Your task to perform on an android device: What's the latest video from GameSpot? Image 0: 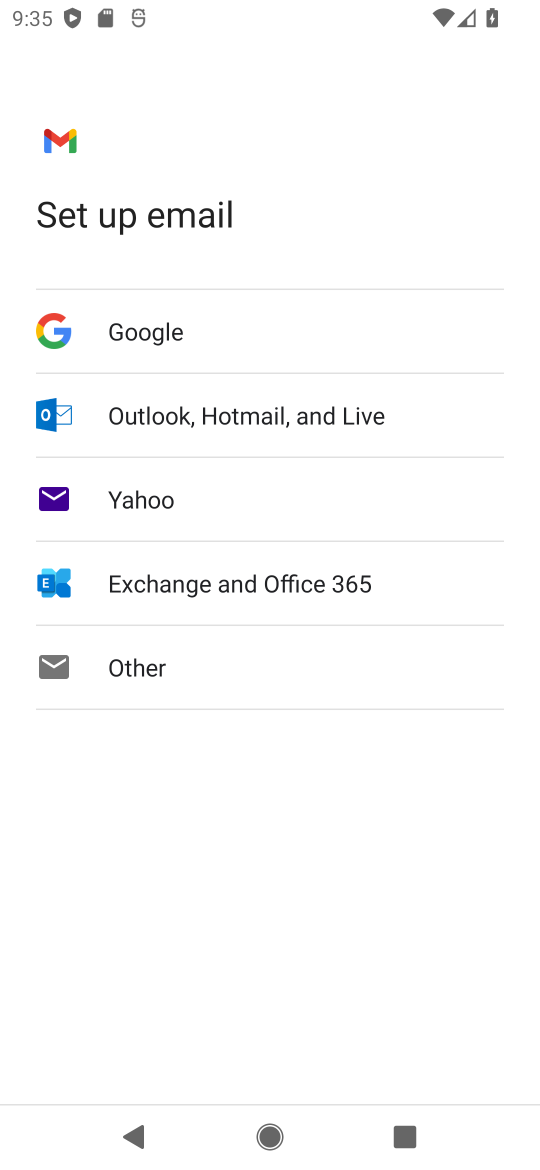
Step 0: press home button
Your task to perform on an android device: What's the latest video from GameSpot? Image 1: 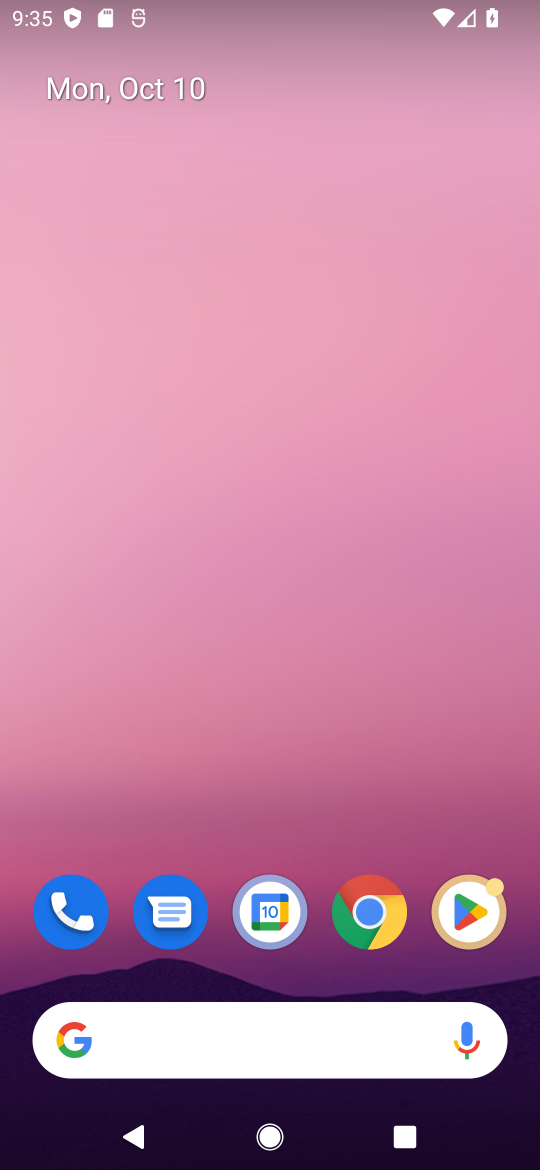
Step 1: click (76, 1035)
Your task to perform on an android device: What's the latest video from GameSpot? Image 2: 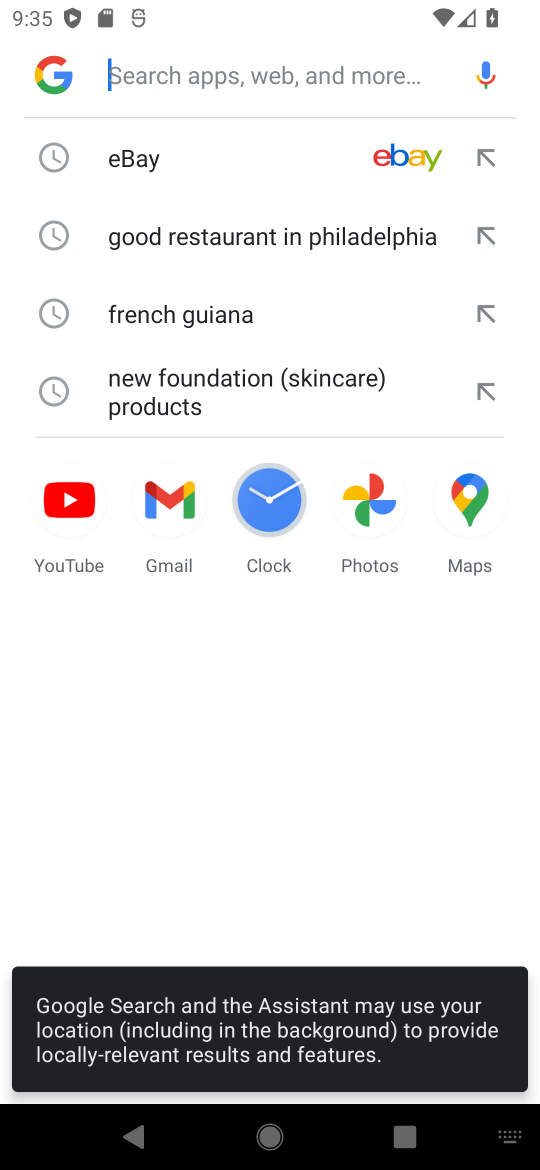
Step 2: click (258, 70)
Your task to perform on an android device: What's the latest video from GameSpot? Image 3: 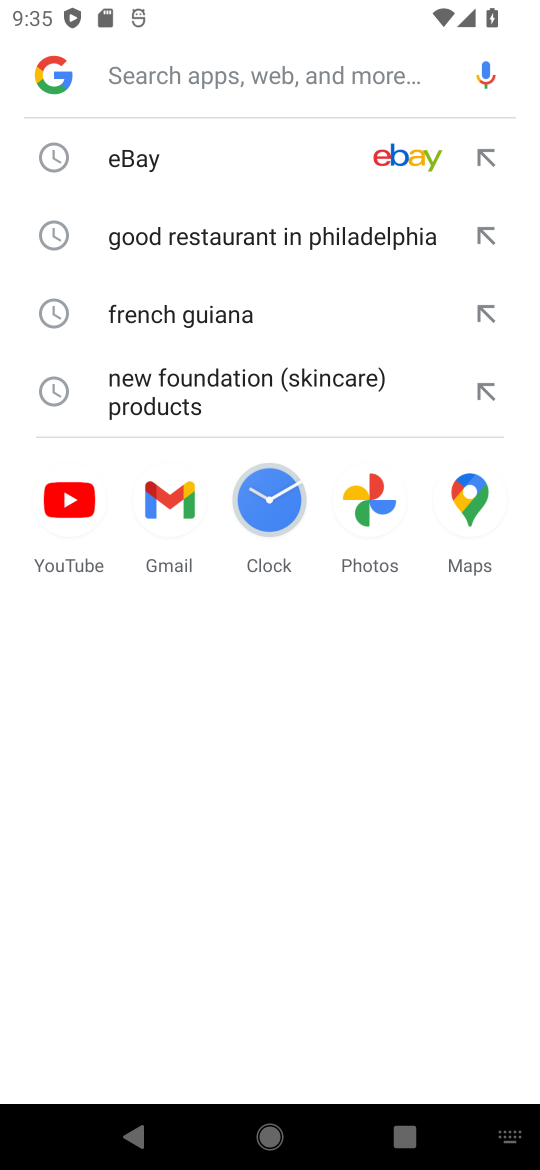
Step 3: type "whats the latest video from gamespot?"
Your task to perform on an android device: What's the latest video from GameSpot? Image 4: 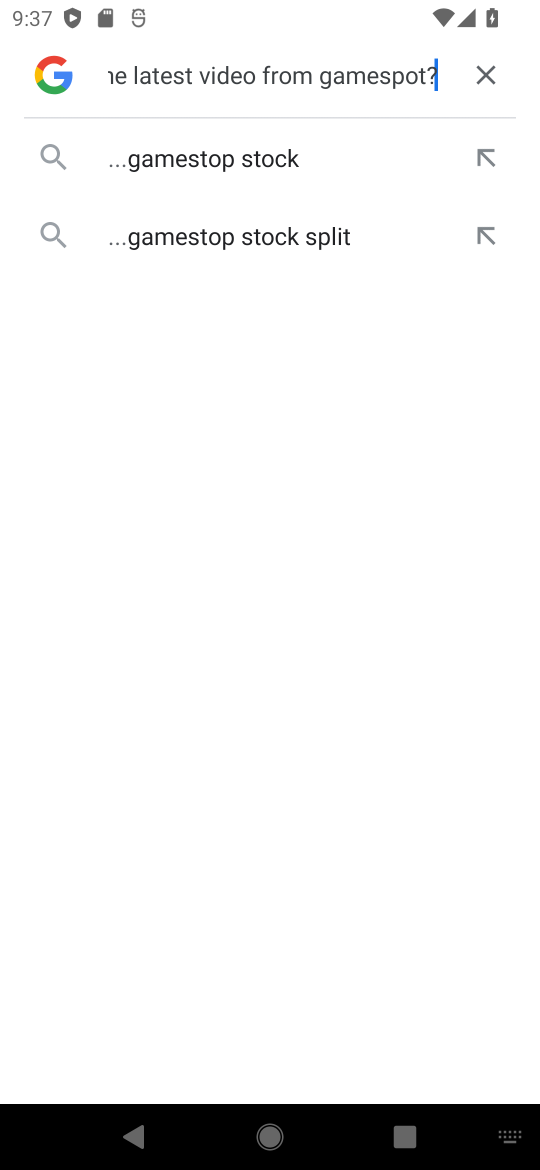
Step 4: click (236, 159)
Your task to perform on an android device: What's the latest video from GameSpot? Image 5: 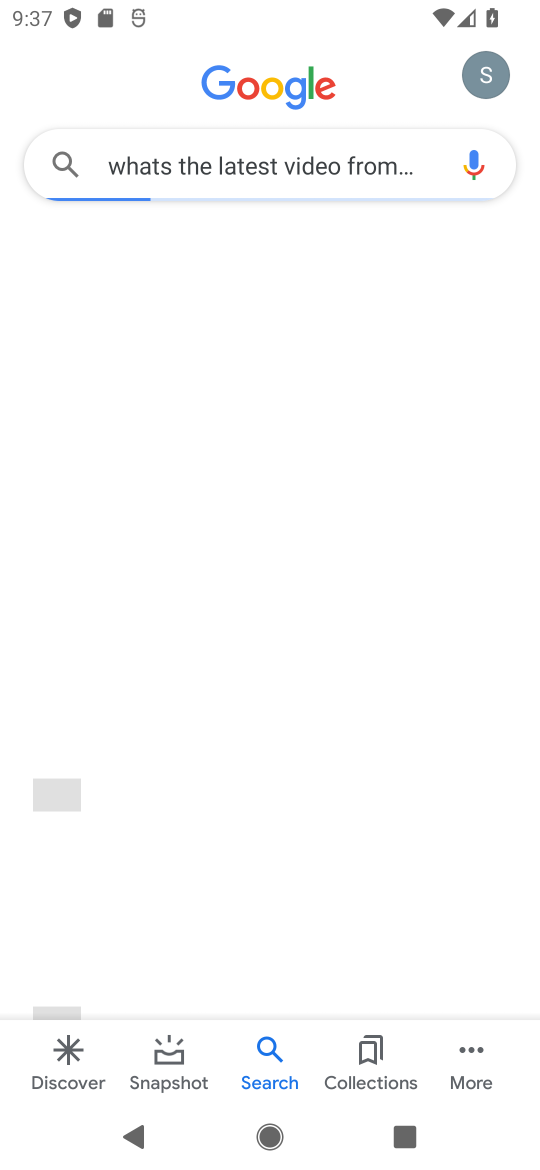
Step 5: task complete